Your task to perform on an android device: change the clock style Image 0: 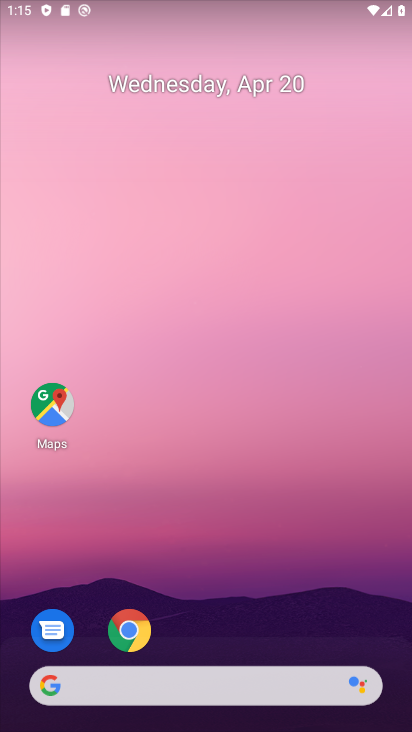
Step 0: drag from (243, 537) to (219, 63)
Your task to perform on an android device: change the clock style Image 1: 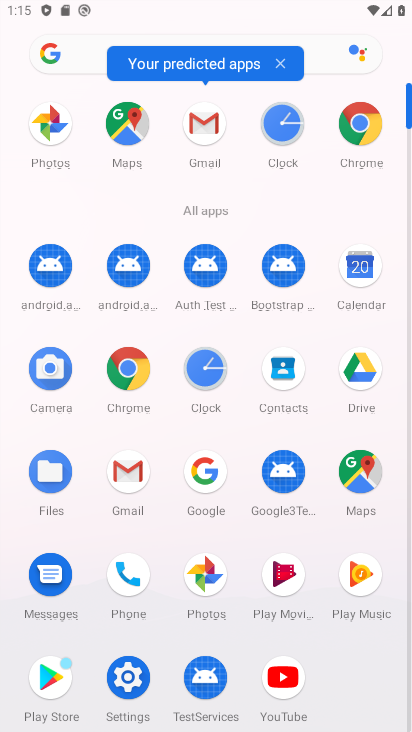
Step 1: click (292, 123)
Your task to perform on an android device: change the clock style Image 2: 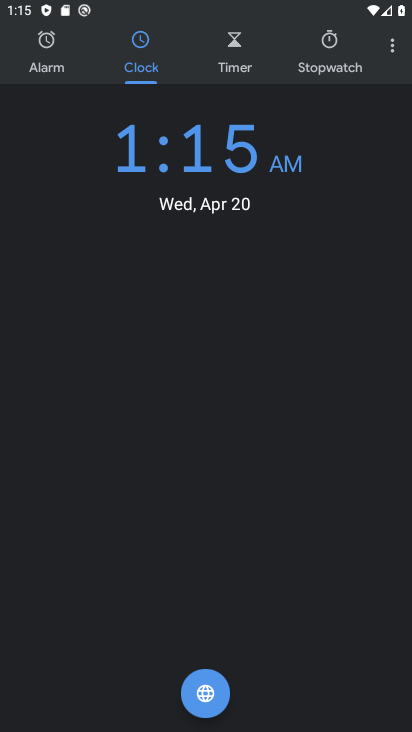
Step 2: click (390, 48)
Your task to perform on an android device: change the clock style Image 3: 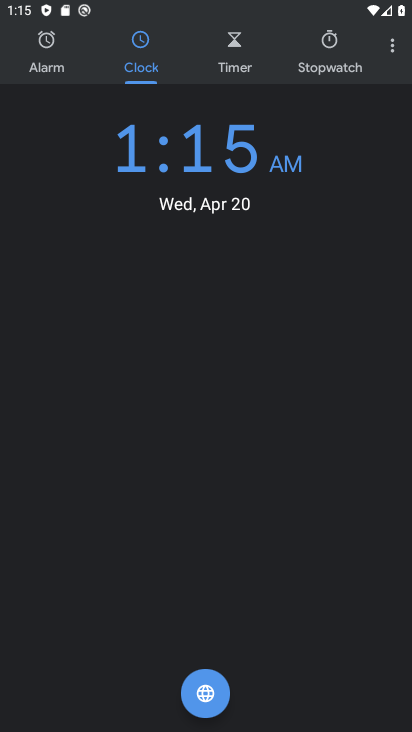
Step 3: drag from (392, 48) to (369, 86)
Your task to perform on an android device: change the clock style Image 4: 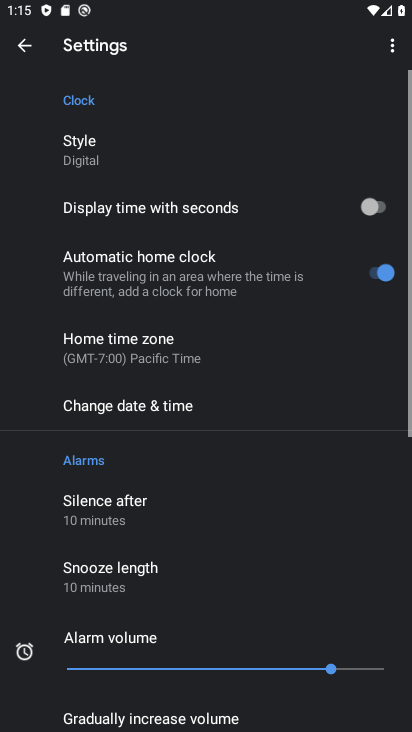
Step 4: click (344, 90)
Your task to perform on an android device: change the clock style Image 5: 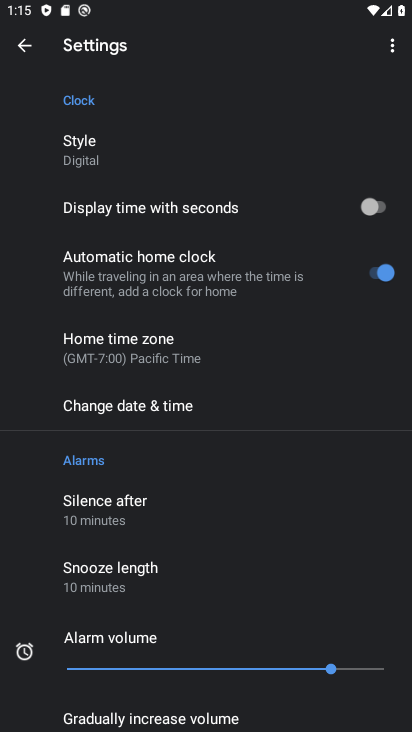
Step 5: click (87, 155)
Your task to perform on an android device: change the clock style Image 6: 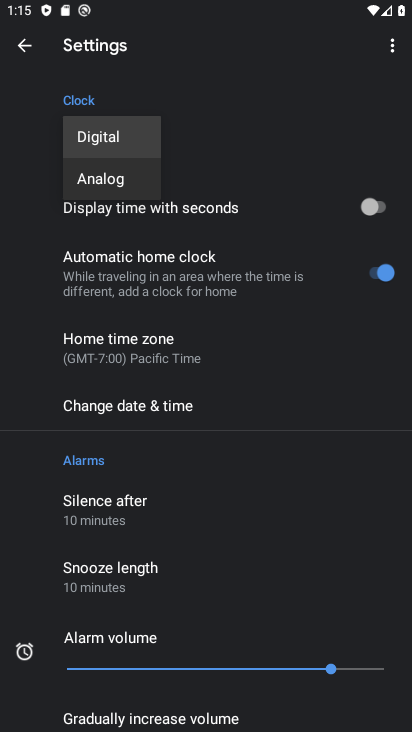
Step 6: click (91, 181)
Your task to perform on an android device: change the clock style Image 7: 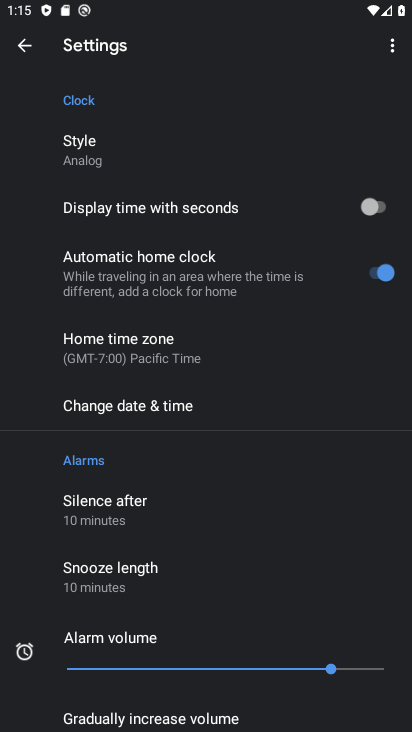
Step 7: task complete